Your task to perform on an android device: What is the recent news? Image 0: 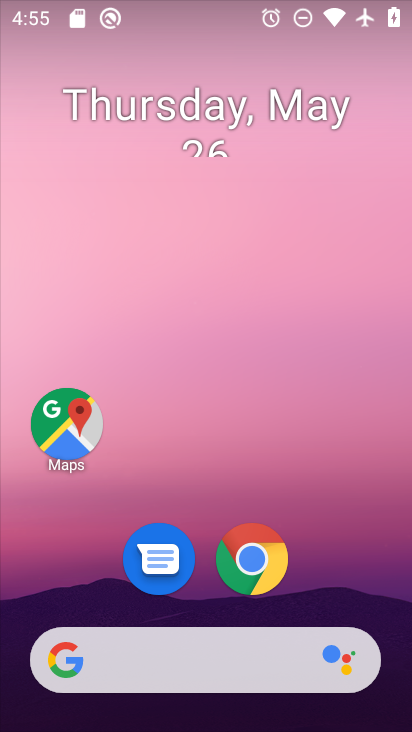
Step 0: drag from (326, 521) to (156, 37)
Your task to perform on an android device: What is the recent news? Image 1: 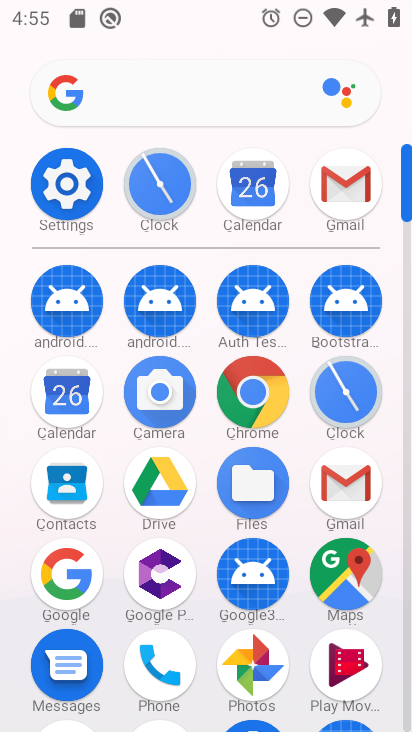
Step 1: click (70, 565)
Your task to perform on an android device: What is the recent news? Image 2: 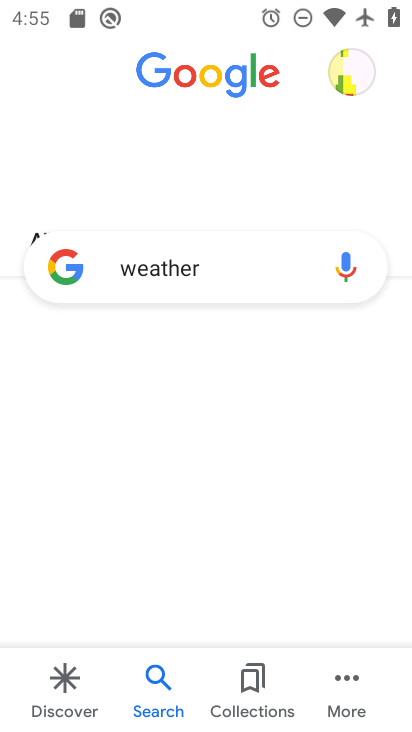
Step 2: click (195, 267)
Your task to perform on an android device: What is the recent news? Image 3: 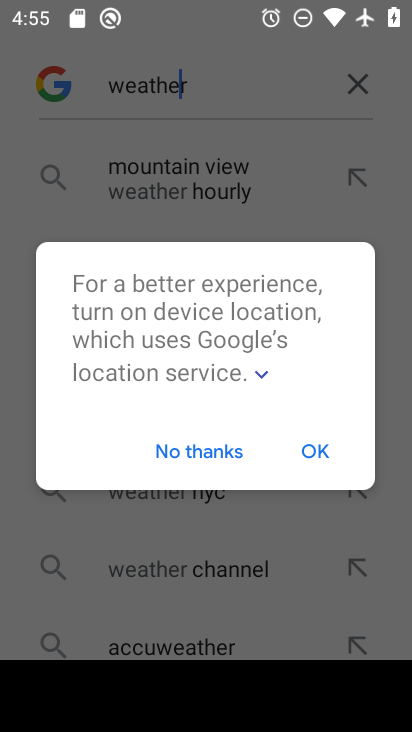
Step 3: click (355, 80)
Your task to perform on an android device: What is the recent news? Image 4: 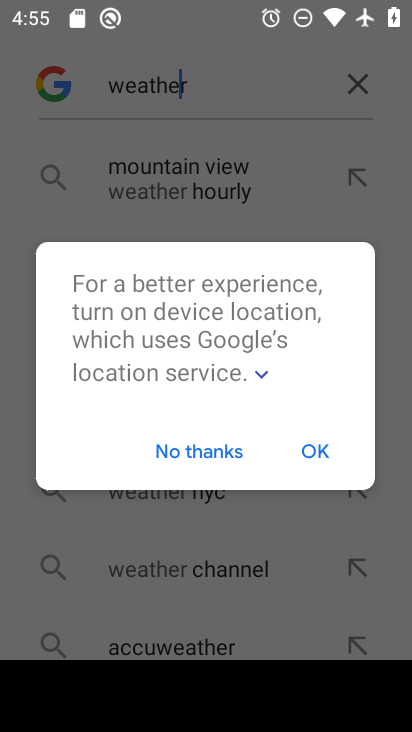
Step 4: click (190, 446)
Your task to perform on an android device: What is the recent news? Image 5: 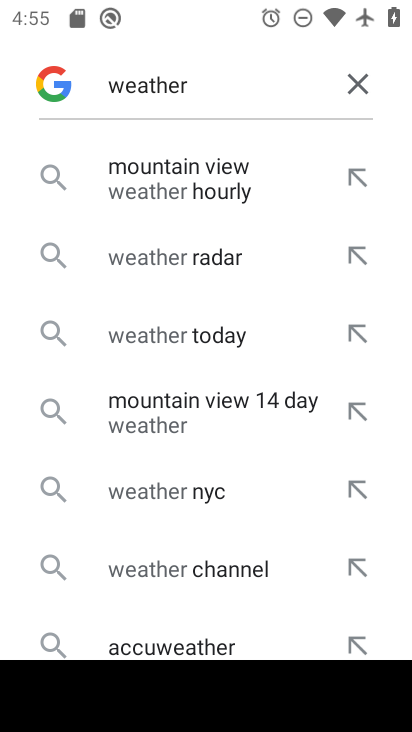
Step 5: click (357, 75)
Your task to perform on an android device: What is the recent news? Image 6: 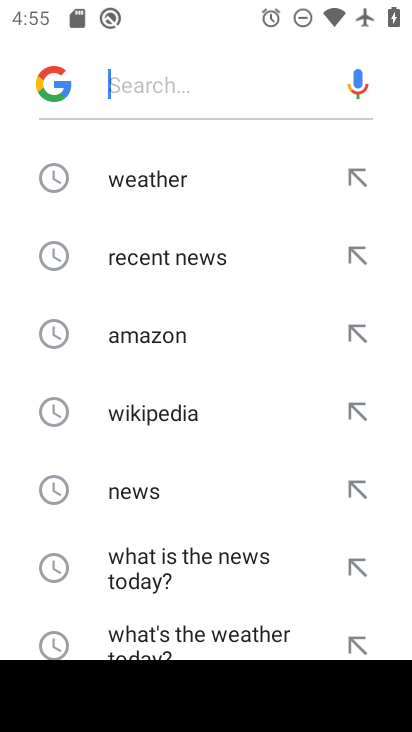
Step 6: click (195, 254)
Your task to perform on an android device: What is the recent news? Image 7: 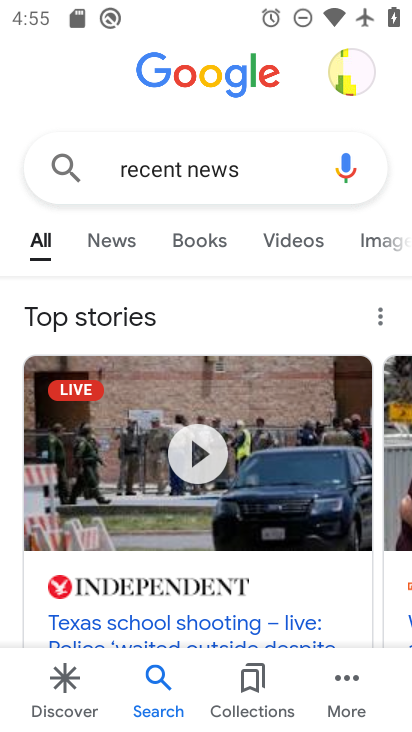
Step 7: task complete